Your task to perform on an android device: What's the weather going to be tomorrow? Image 0: 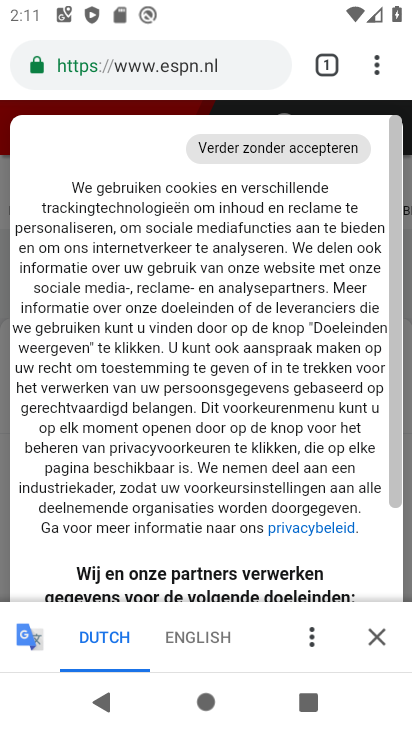
Step 0: press home button
Your task to perform on an android device: What's the weather going to be tomorrow? Image 1: 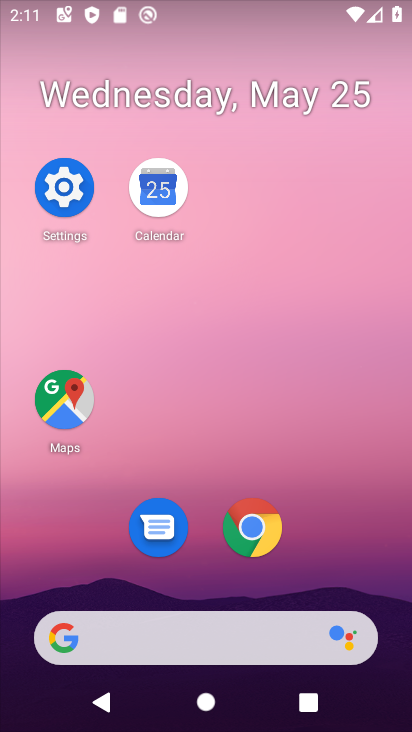
Step 1: drag from (332, 589) to (336, 134)
Your task to perform on an android device: What's the weather going to be tomorrow? Image 2: 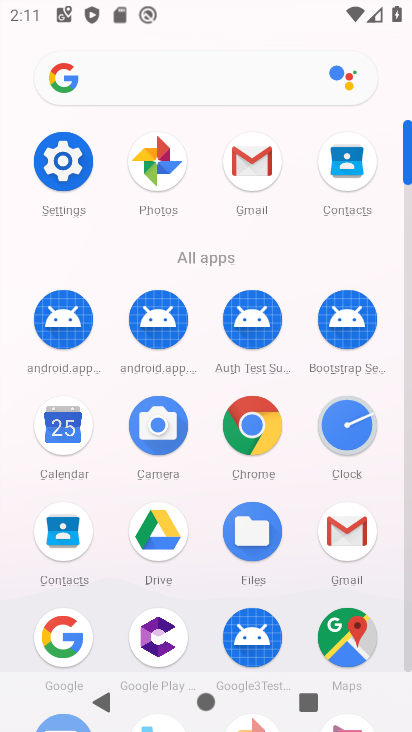
Step 2: drag from (64, 622) to (227, 225)
Your task to perform on an android device: What's the weather going to be tomorrow? Image 3: 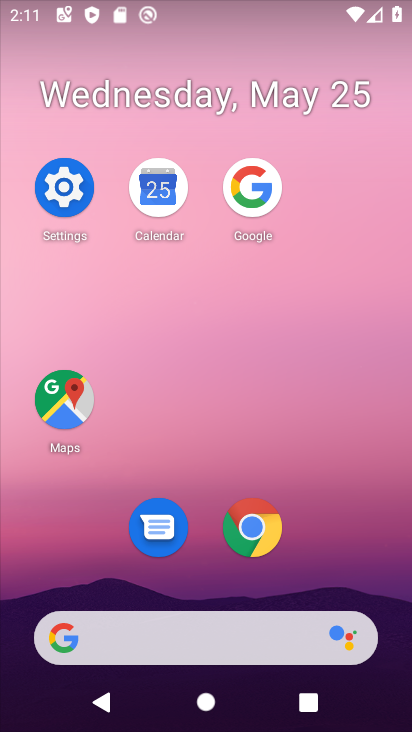
Step 3: click (249, 197)
Your task to perform on an android device: What's the weather going to be tomorrow? Image 4: 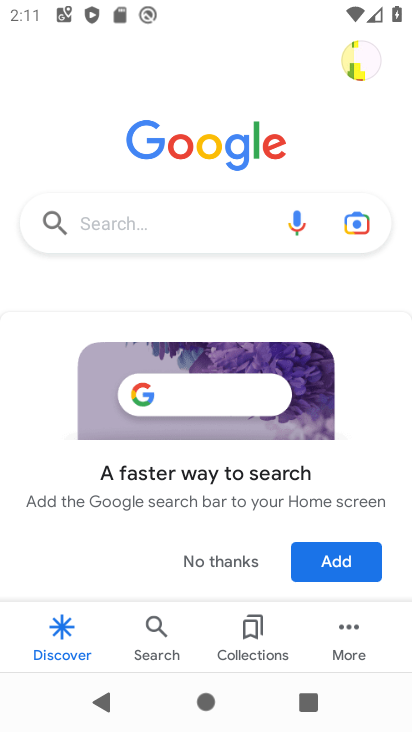
Step 4: click (78, 218)
Your task to perform on an android device: What's the weather going to be tomorrow? Image 5: 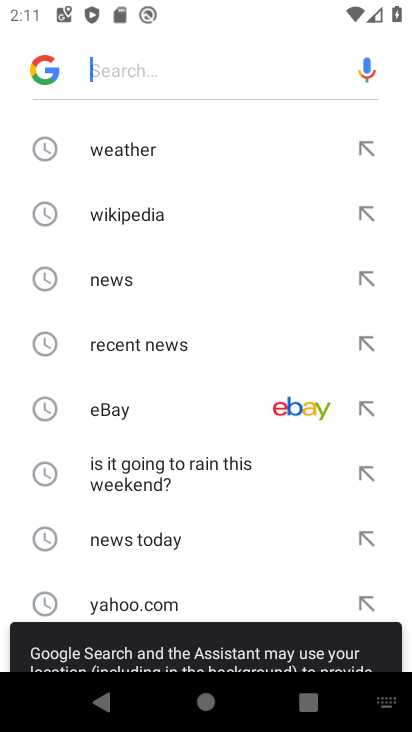
Step 5: click (114, 164)
Your task to perform on an android device: What's the weather going to be tomorrow? Image 6: 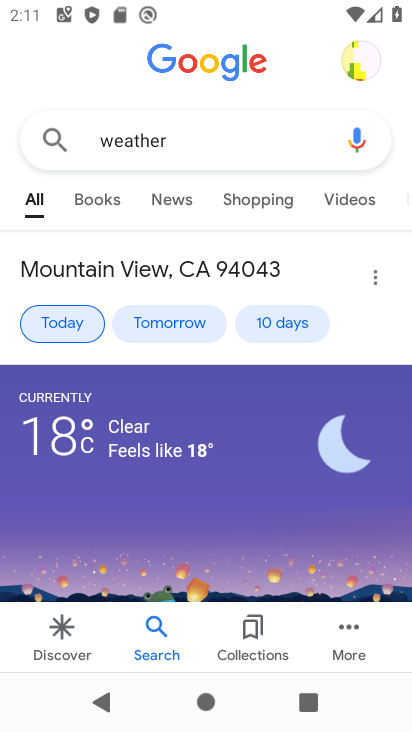
Step 6: click (171, 317)
Your task to perform on an android device: What's the weather going to be tomorrow? Image 7: 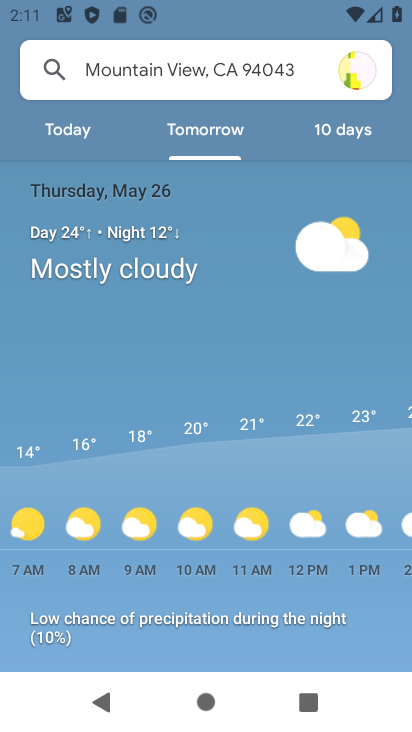
Step 7: task complete